Your task to perform on an android device: turn on sleep mode Image 0: 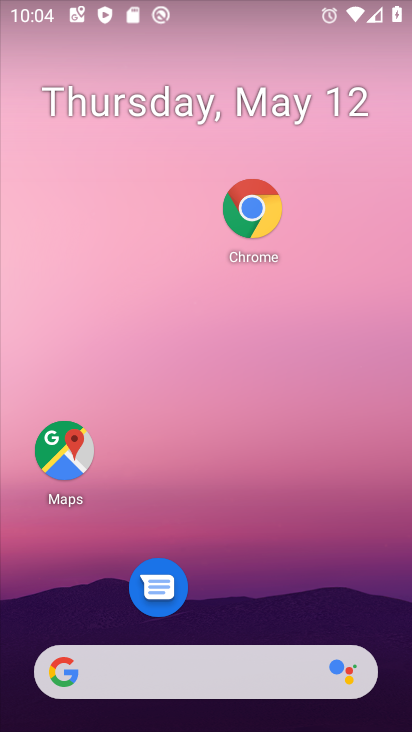
Step 0: drag from (244, 595) to (277, 185)
Your task to perform on an android device: turn on sleep mode Image 1: 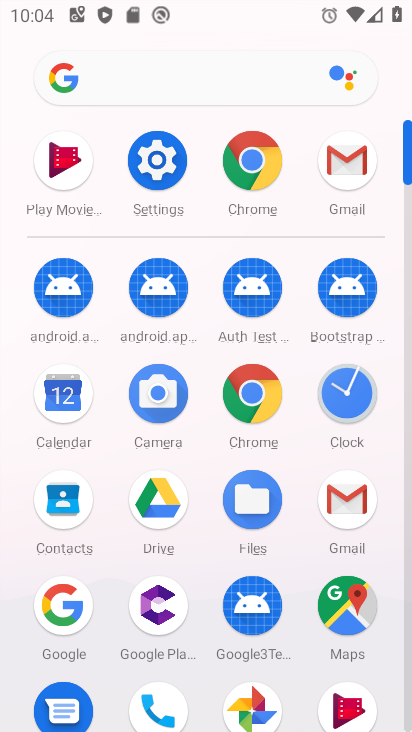
Step 1: click (156, 160)
Your task to perform on an android device: turn on sleep mode Image 2: 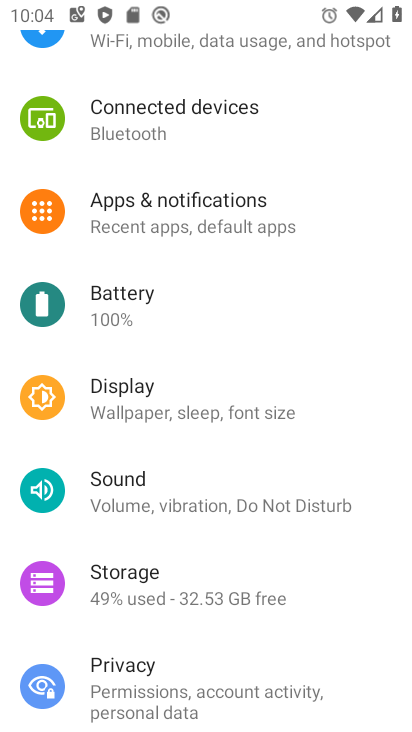
Step 2: task complete